Your task to perform on an android device: turn off location Image 0: 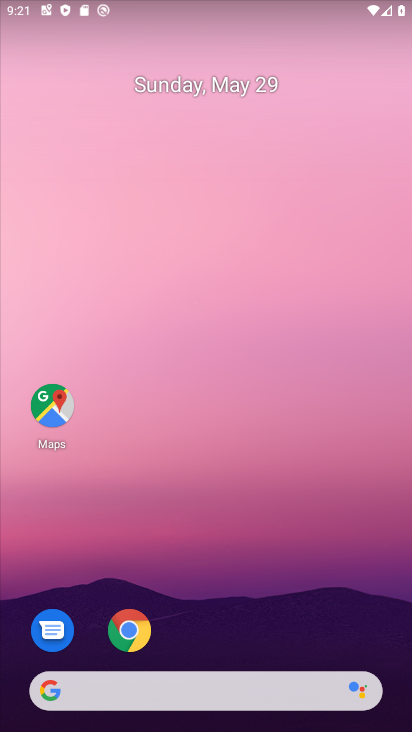
Step 0: drag from (364, 586) to (338, 93)
Your task to perform on an android device: turn off location Image 1: 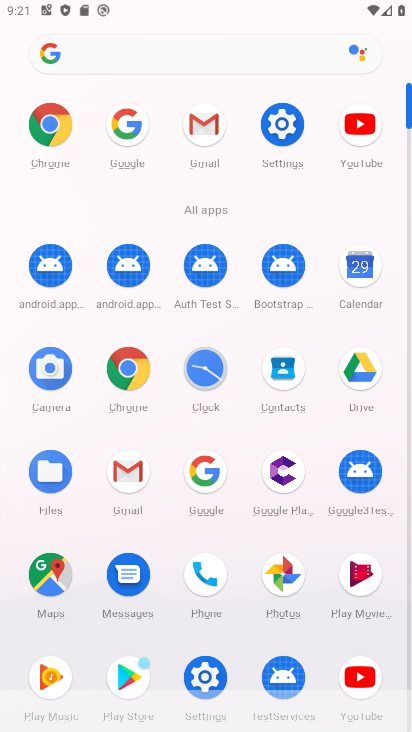
Step 1: click (277, 124)
Your task to perform on an android device: turn off location Image 2: 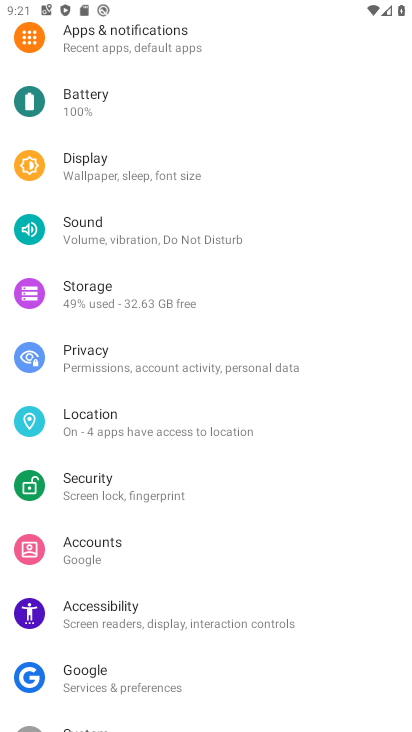
Step 2: click (181, 428)
Your task to perform on an android device: turn off location Image 3: 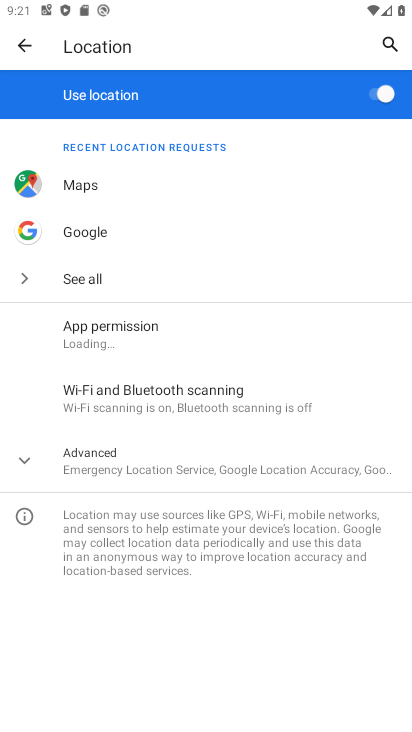
Step 3: click (378, 99)
Your task to perform on an android device: turn off location Image 4: 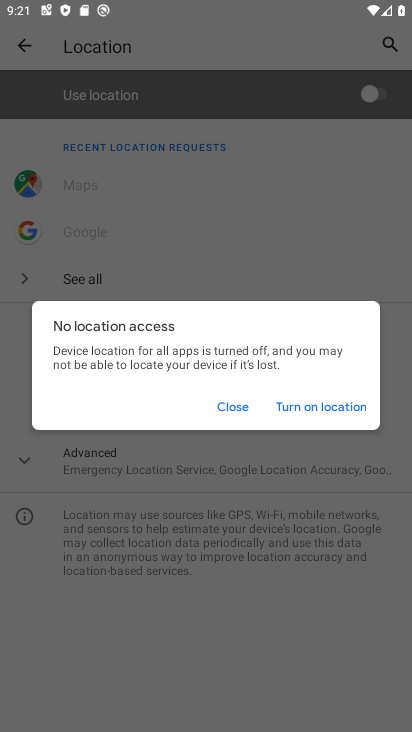
Step 4: task complete